Your task to perform on an android device: What is the recent news? Image 0: 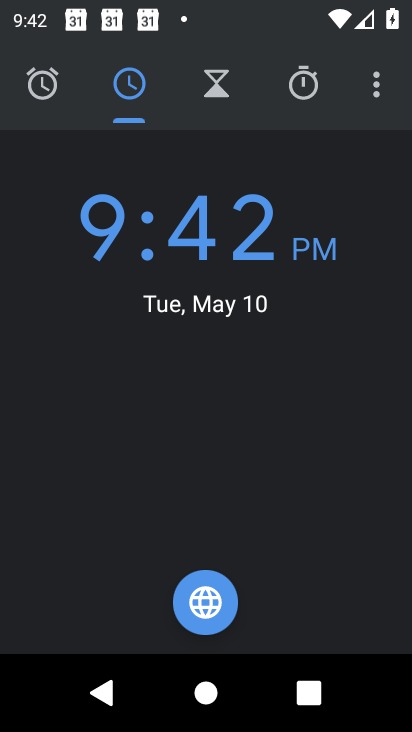
Step 0: press home button
Your task to perform on an android device: What is the recent news? Image 1: 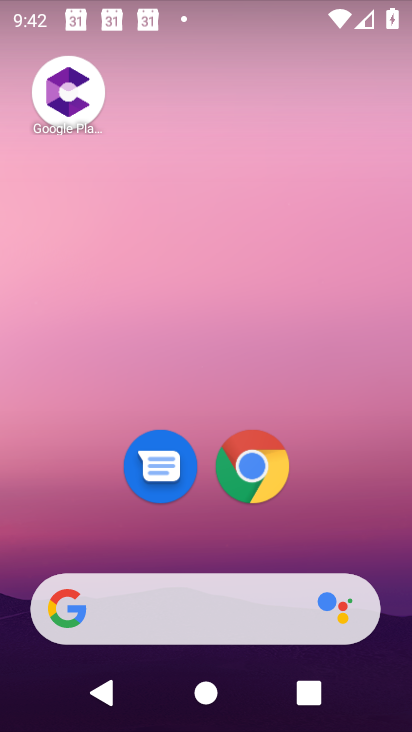
Step 1: drag from (303, 513) to (294, 221)
Your task to perform on an android device: What is the recent news? Image 2: 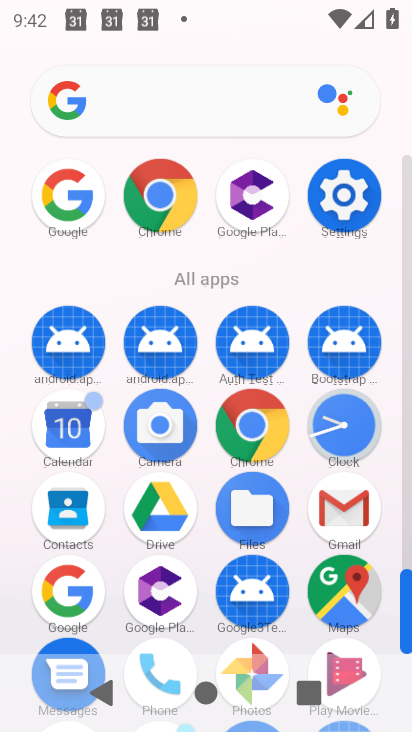
Step 2: click (163, 188)
Your task to perform on an android device: What is the recent news? Image 3: 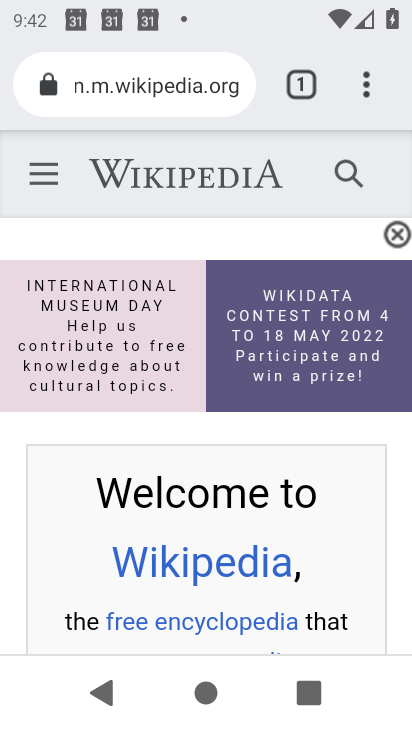
Step 3: click (157, 77)
Your task to perform on an android device: What is the recent news? Image 4: 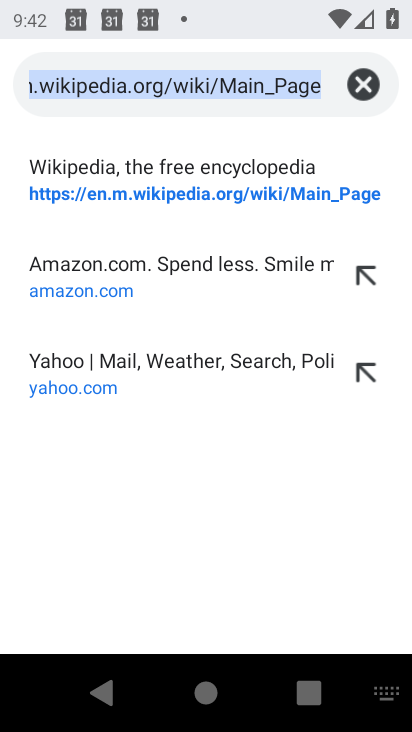
Step 4: type "news"
Your task to perform on an android device: What is the recent news? Image 5: 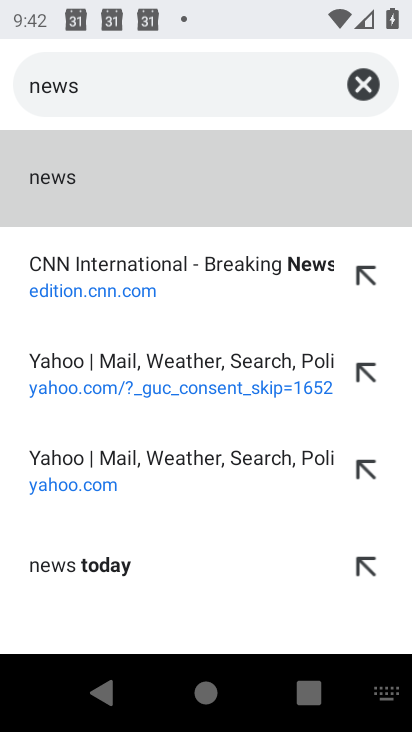
Step 5: click (46, 169)
Your task to perform on an android device: What is the recent news? Image 6: 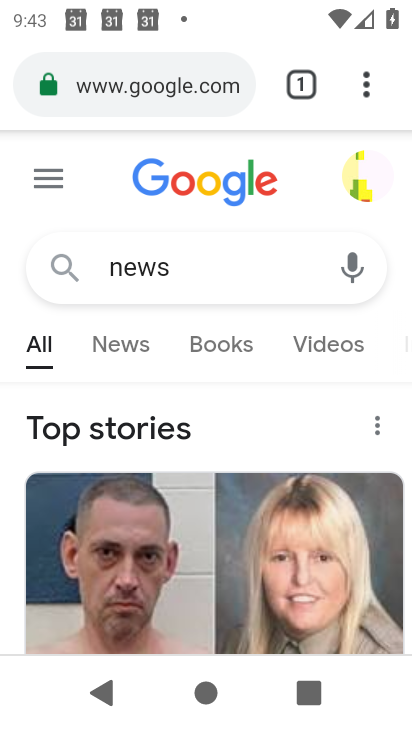
Step 6: drag from (251, 547) to (234, 337)
Your task to perform on an android device: What is the recent news? Image 7: 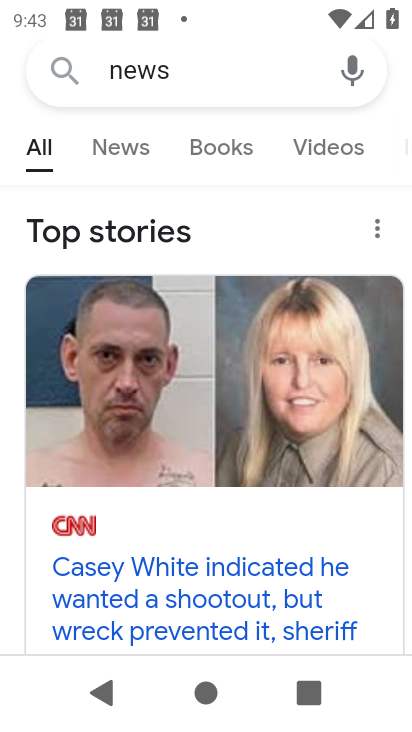
Step 7: click (128, 136)
Your task to perform on an android device: What is the recent news? Image 8: 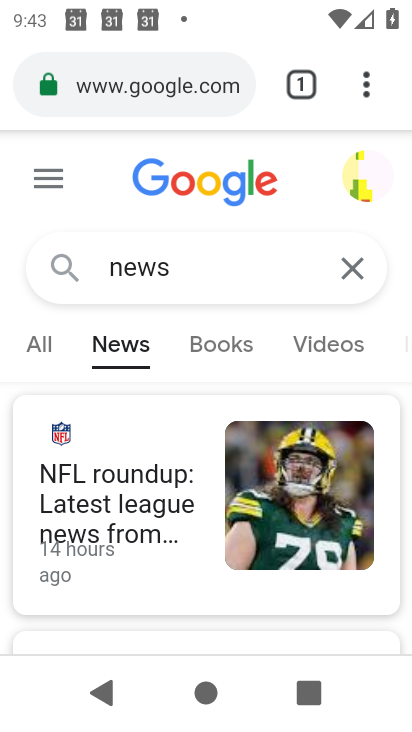
Step 8: task complete